Your task to perform on an android device: turn on javascript in the chrome app Image 0: 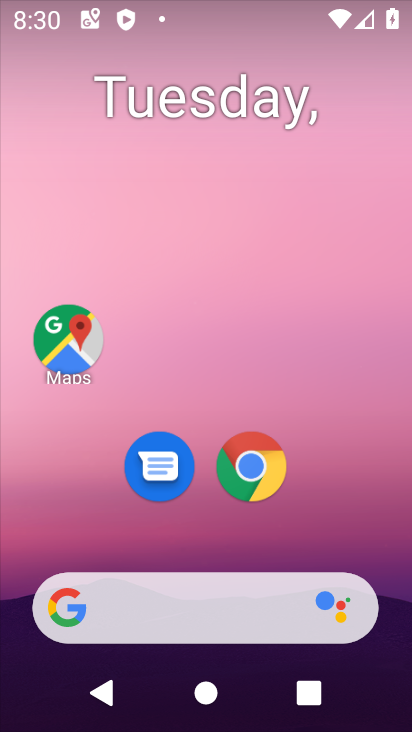
Step 0: click (281, 487)
Your task to perform on an android device: turn on javascript in the chrome app Image 1: 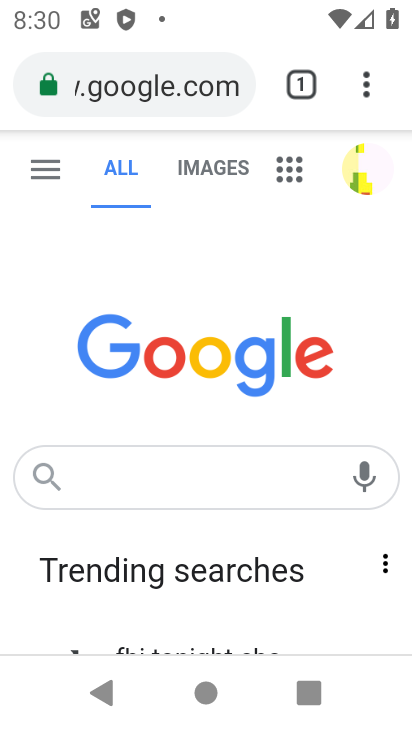
Step 1: click (363, 65)
Your task to perform on an android device: turn on javascript in the chrome app Image 2: 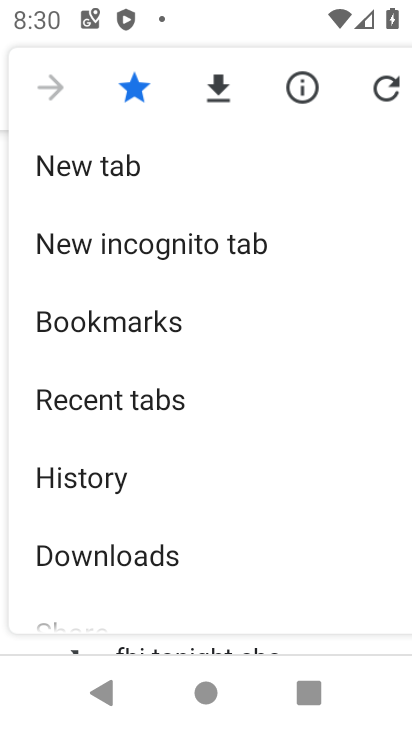
Step 2: drag from (189, 615) to (256, 240)
Your task to perform on an android device: turn on javascript in the chrome app Image 3: 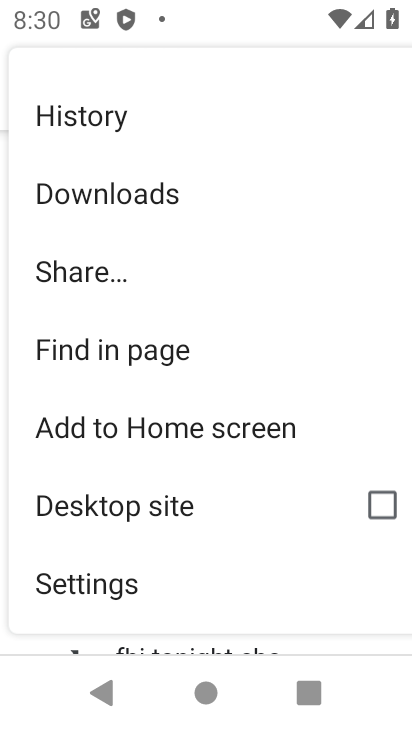
Step 3: click (153, 564)
Your task to perform on an android device: turn on javascript in the chrome app Image 4: 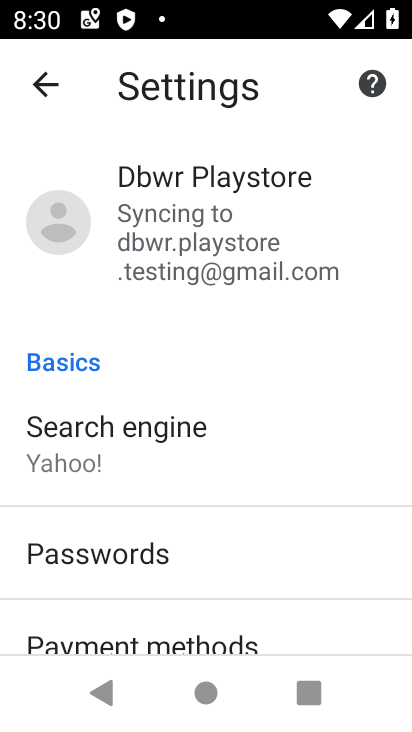
Step 4: drag from (131, 577) to (208, 202)
Your task to perform on an android device: turn on javascript in the chrome app Image 5: 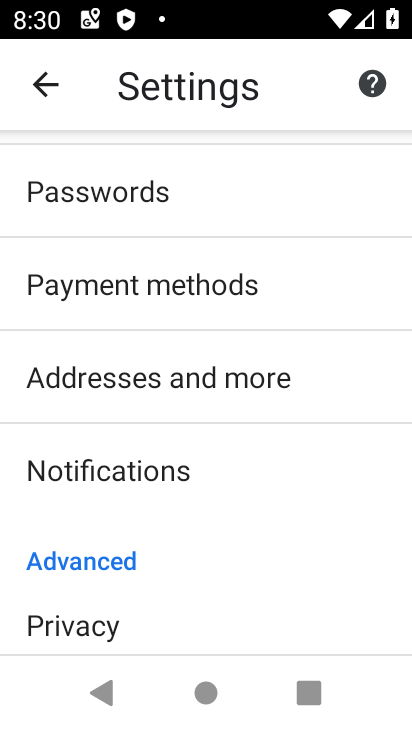
Step 5: drag from (199, 550) to (222, 360)
Your task to perform on an android device: turn on javascript in the chrome app Image 6: 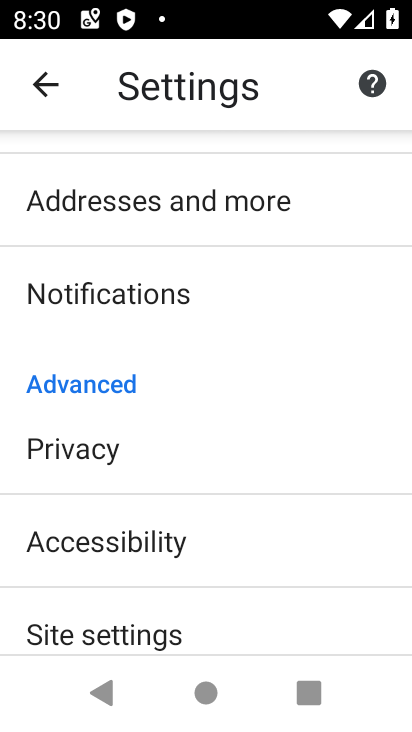
Step 6: click (133, 605)
Your task to perform on an android device: turn on javascript in the chrome app Image 7: 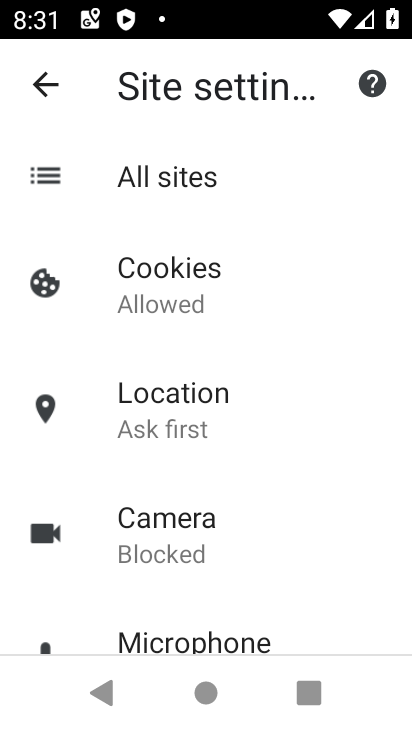
Step 7: drag from (269, 576) to (292, 268)
Your task to perform on an android device: turn on javascript in the chrome app Image 8: 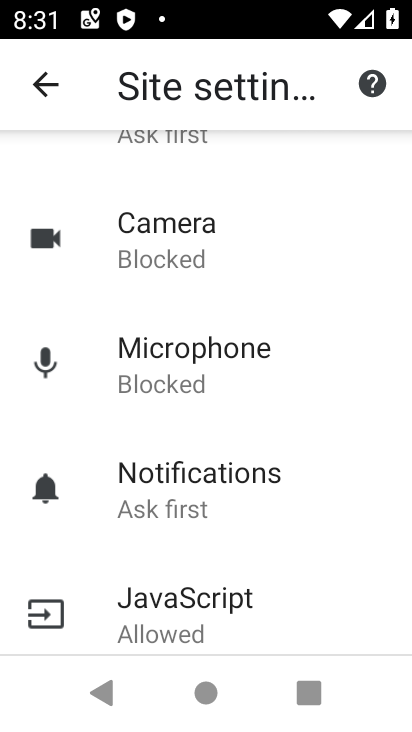
Step 8: click (205, 631)
Your task to perform on an android device: turn on javascript in the chrome app Image 9: 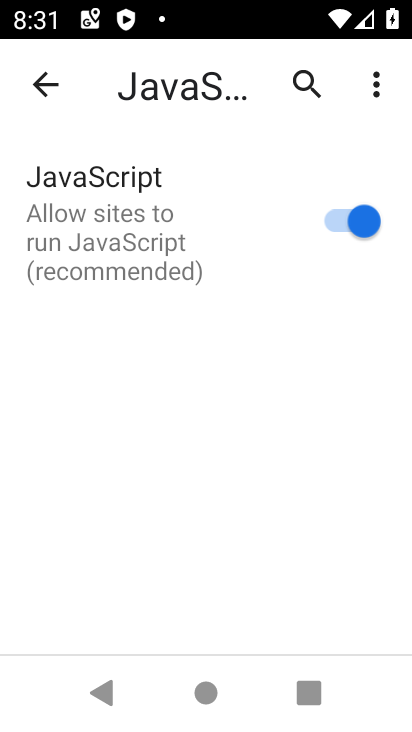
Step 9: task complete